Your task to perform on an android device: install app "Etsy: Buy & Sell Unique Items" Image 0: 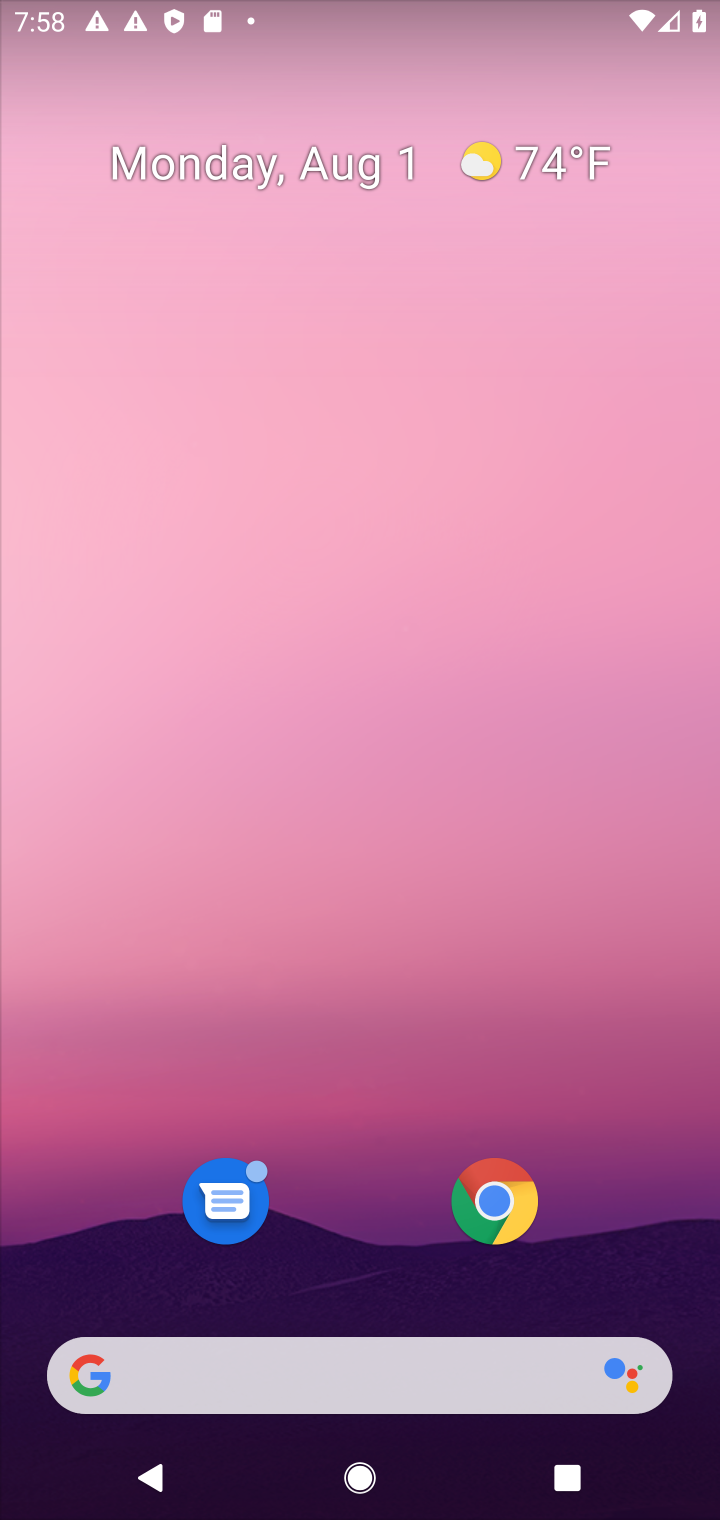
Step 0: drag from (635, 1181) to (597, 162)
Your task to perform on an android device: install app "Etsy: Buy & Sell Unique Items" Image 1: 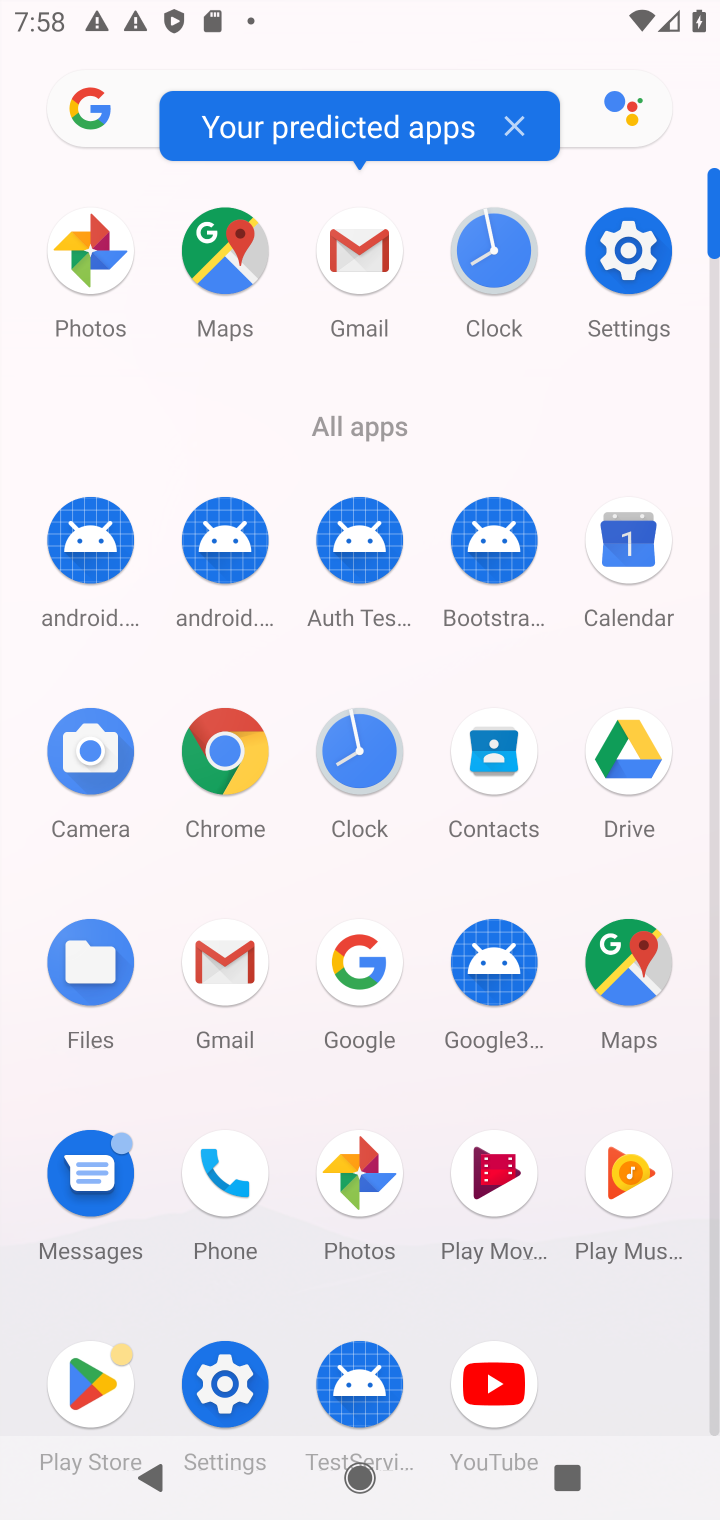
Step 1: click (79, 1367)
Your task to perform on an android device: install app "Etsy: Buy & Sell Unique Items" Image 2: 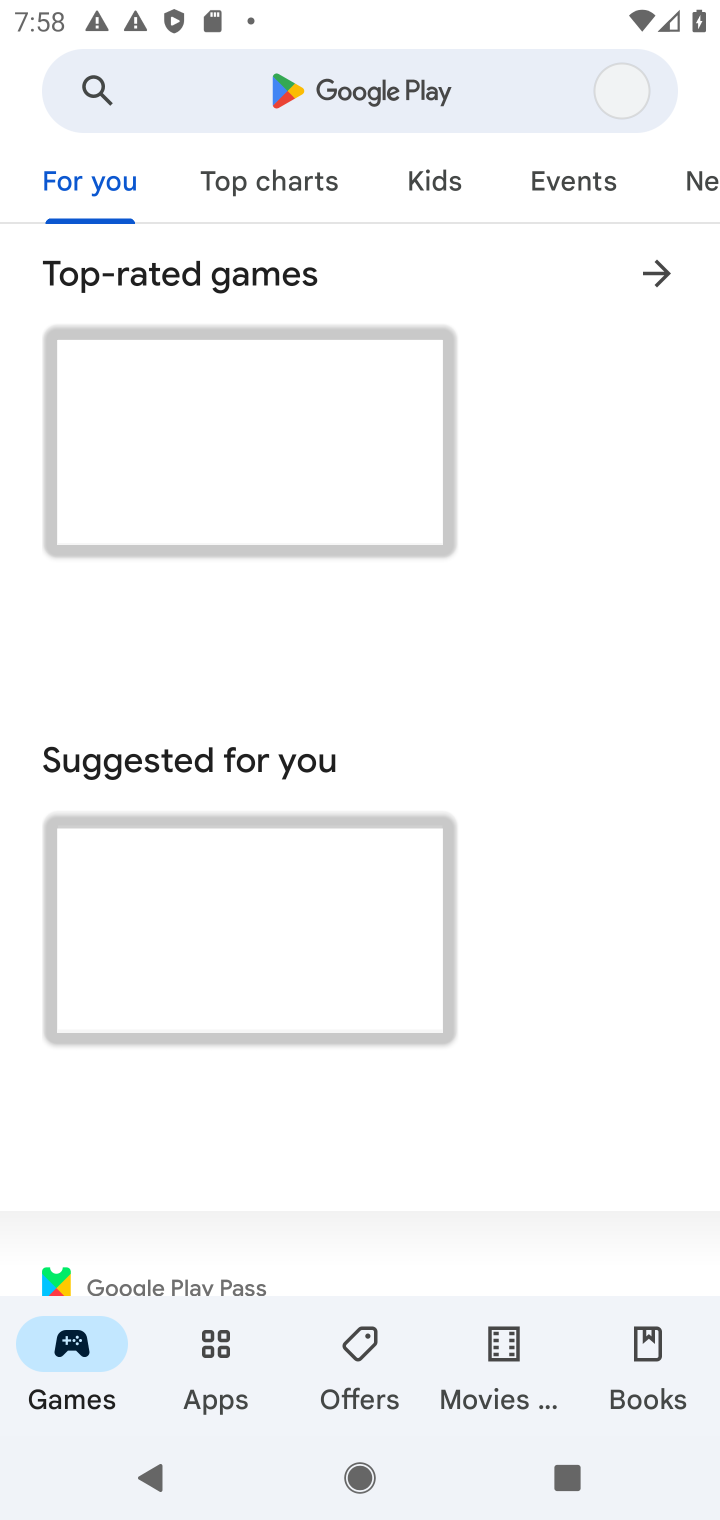
Step 2: click (443, 77)
Your task to perform on an android device: install app "Etsy: Buy & Sell Unique Items" Image 3: 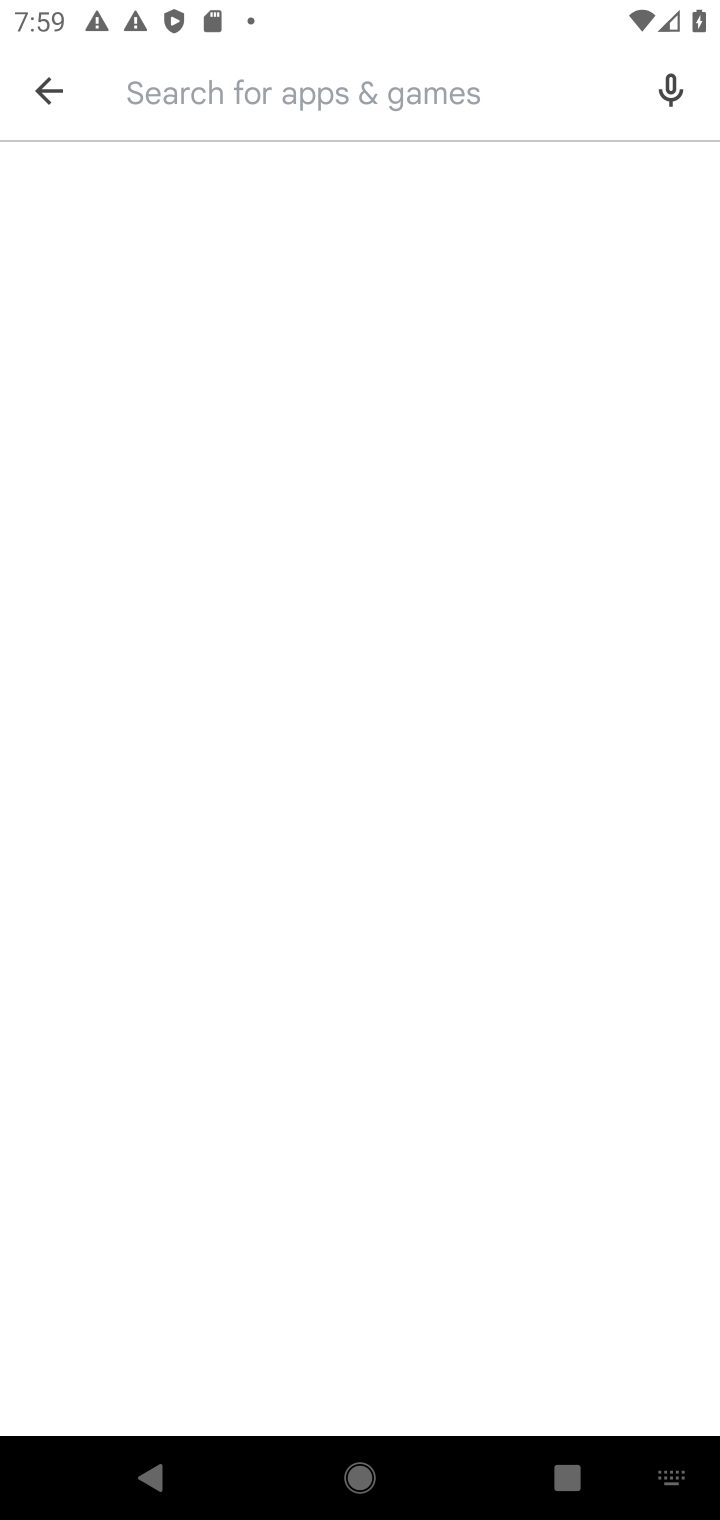
Step 3: type "Etsy: Buy $sell unique items"
Your task to perform on an android device: install app "Etsy: Buy & Sell Unique Items" Image 4: 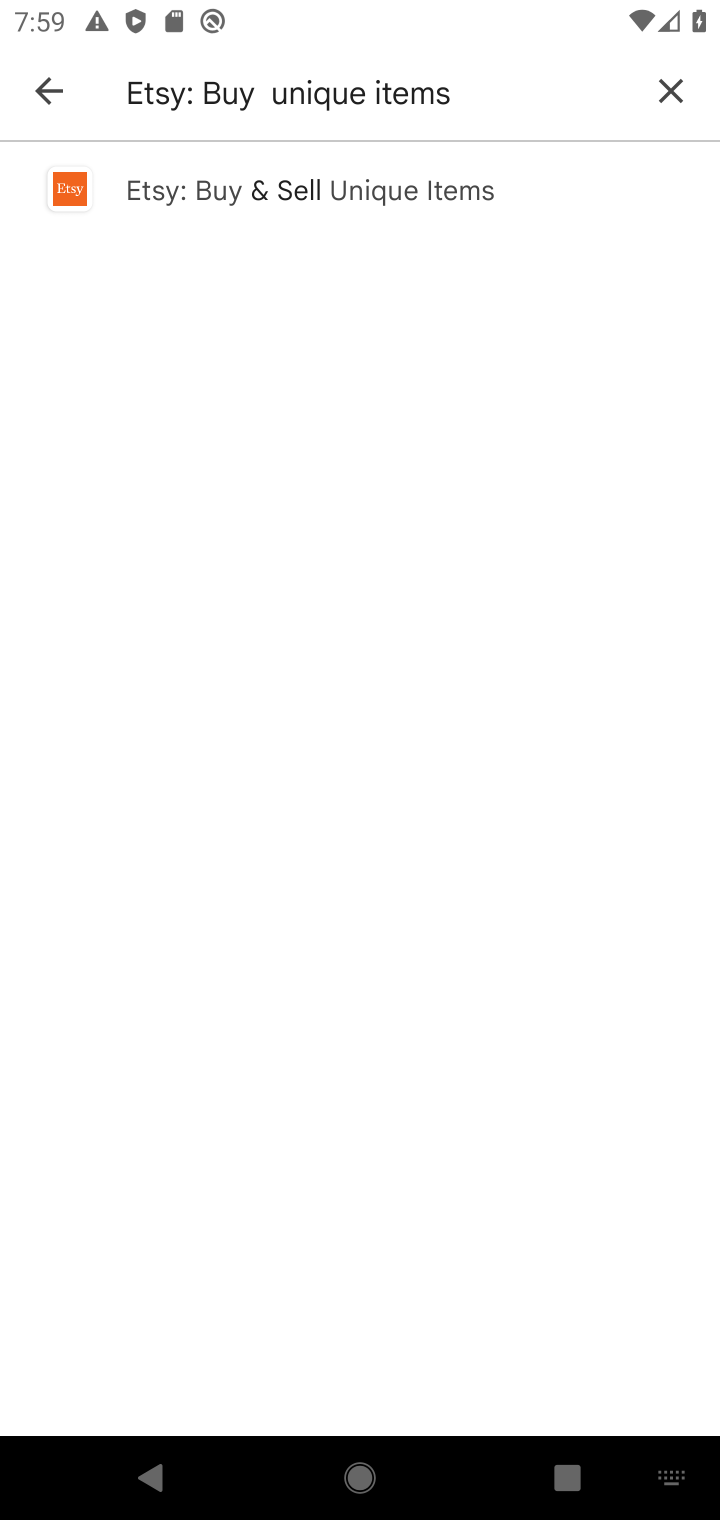
Step 4: click (437, 205)
Your task to perform on an android device: install app "Etsy: Buy & Sell Unique Items" Image 5: 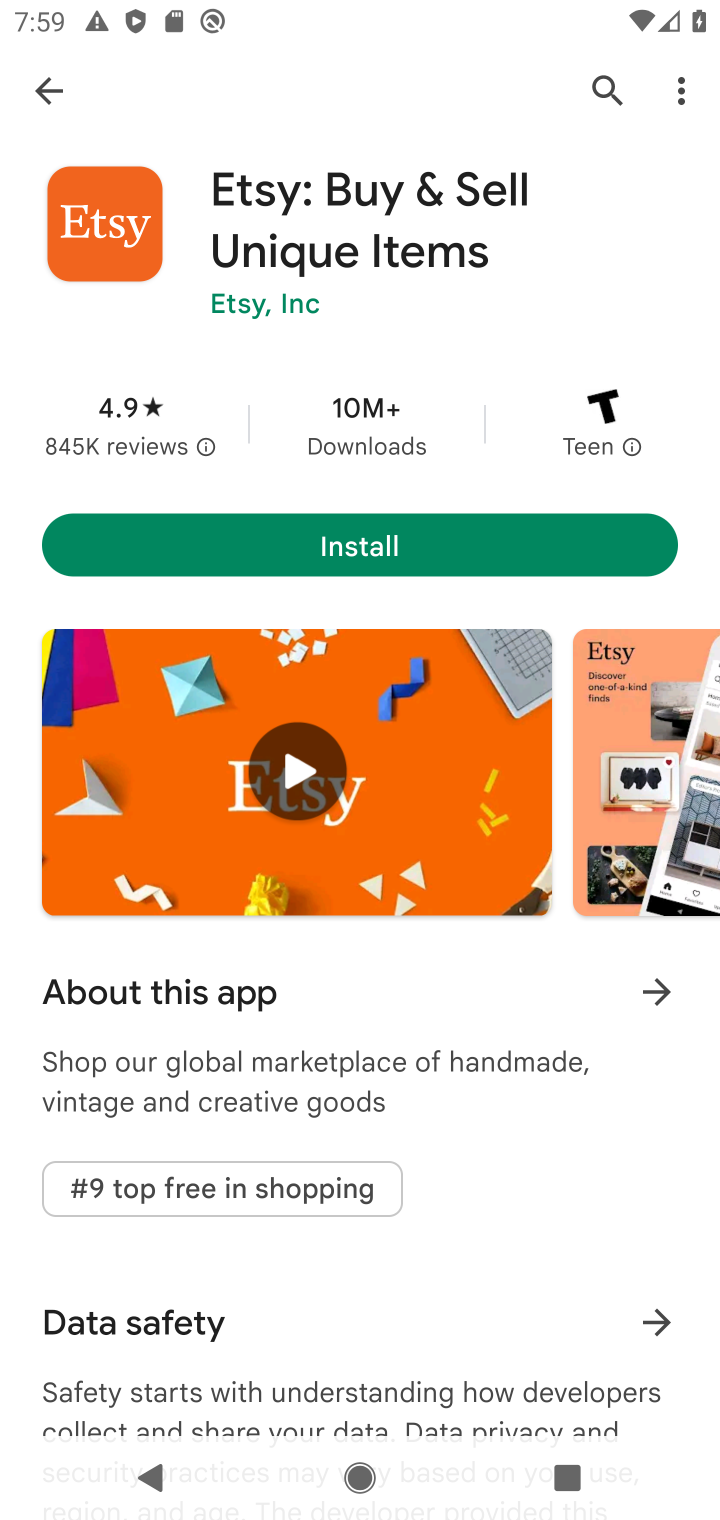
Step 5: click (407, 545)
Your task to perform on an android device: install app "Etsy: Buy & Sell Unique Items" Image 6: 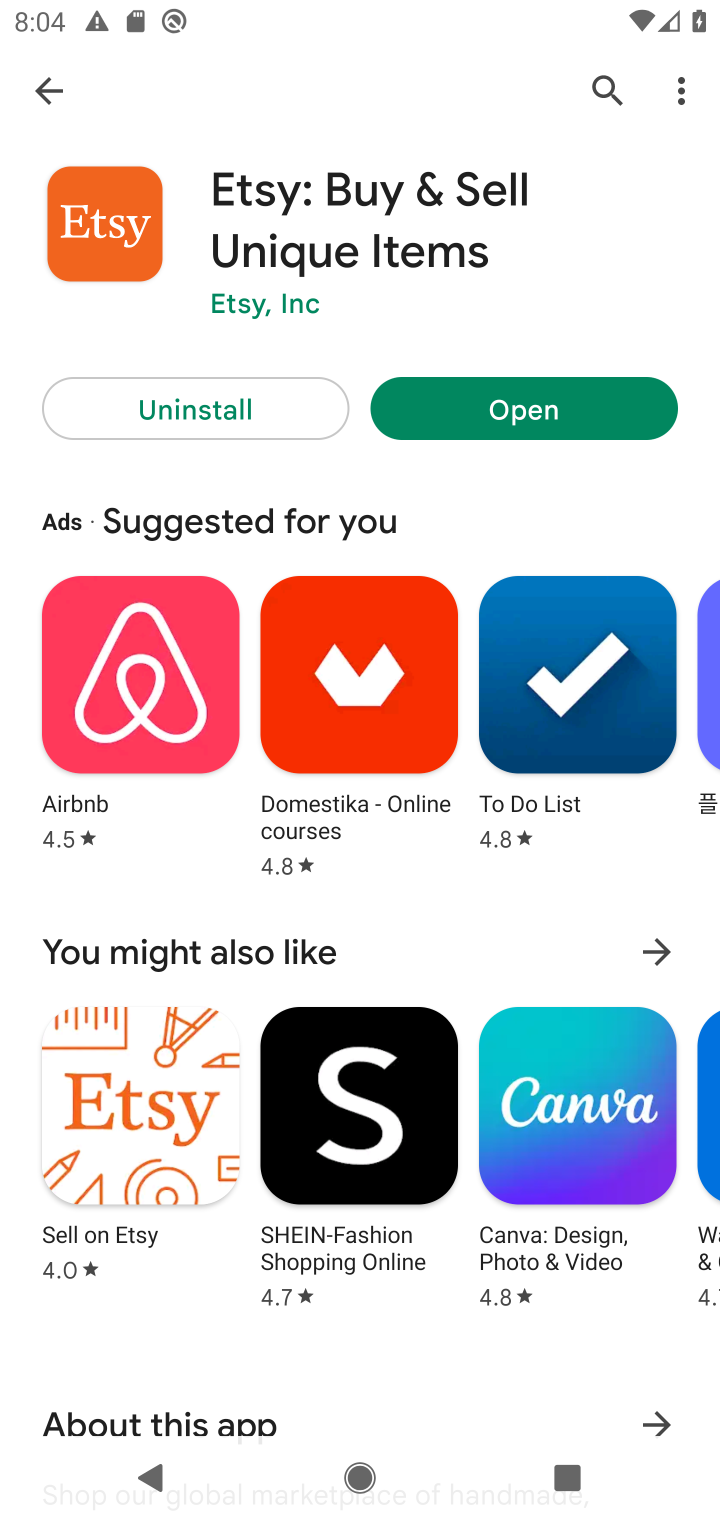
Step 6: task complete